Your task to perform on an android device: What is the news today? Image 0: 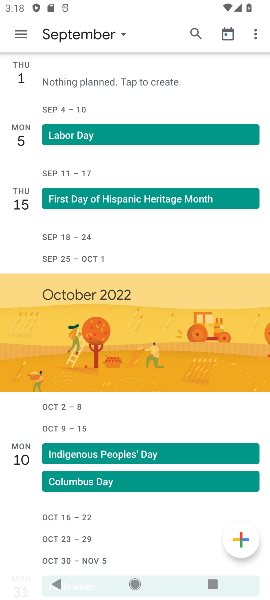
Step 0: press back button
Your task to perform on an android device: What is the news today? Image 1: 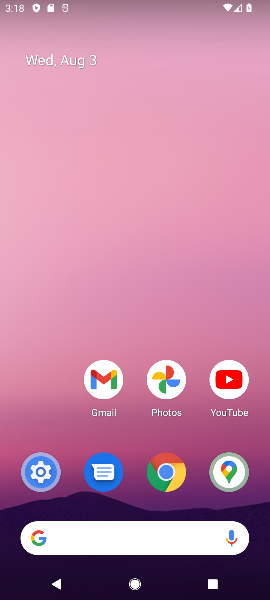
Step 1: click (71, 545)
Your task to perform on an android device: What is the news today? Image 2: 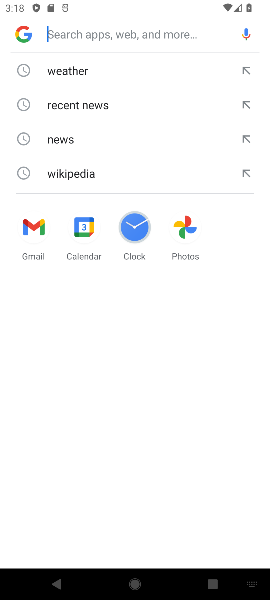
Step 2: click (96, 38)
Your task to perform on an android device: What is the news today? Image 3: 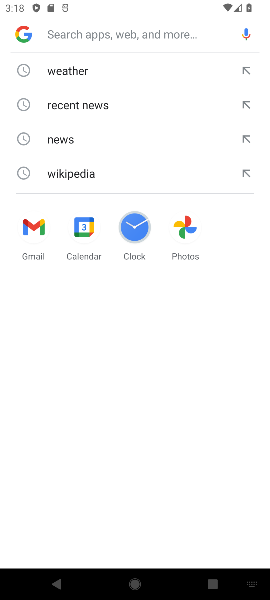
Step 3: type "news roday"
Your task to perform on an android device: What is the news today? Image 4: 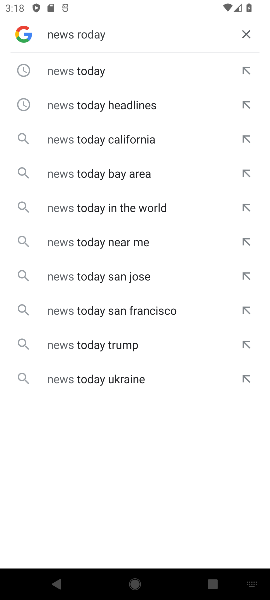
Step 4: click (115, 71)
Your task to perform on an android device: What is the news today? Image 5: 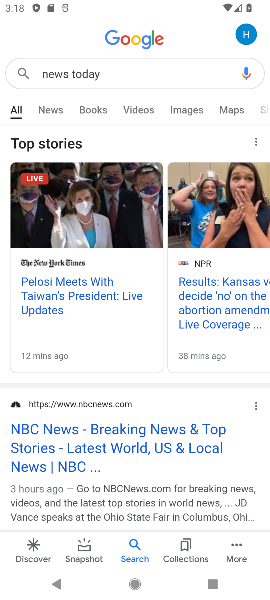
Step 5: task complete